Your task to perform on an android device: Check the price on the Dyson V11 Motorhead on Best Buy Image 0: 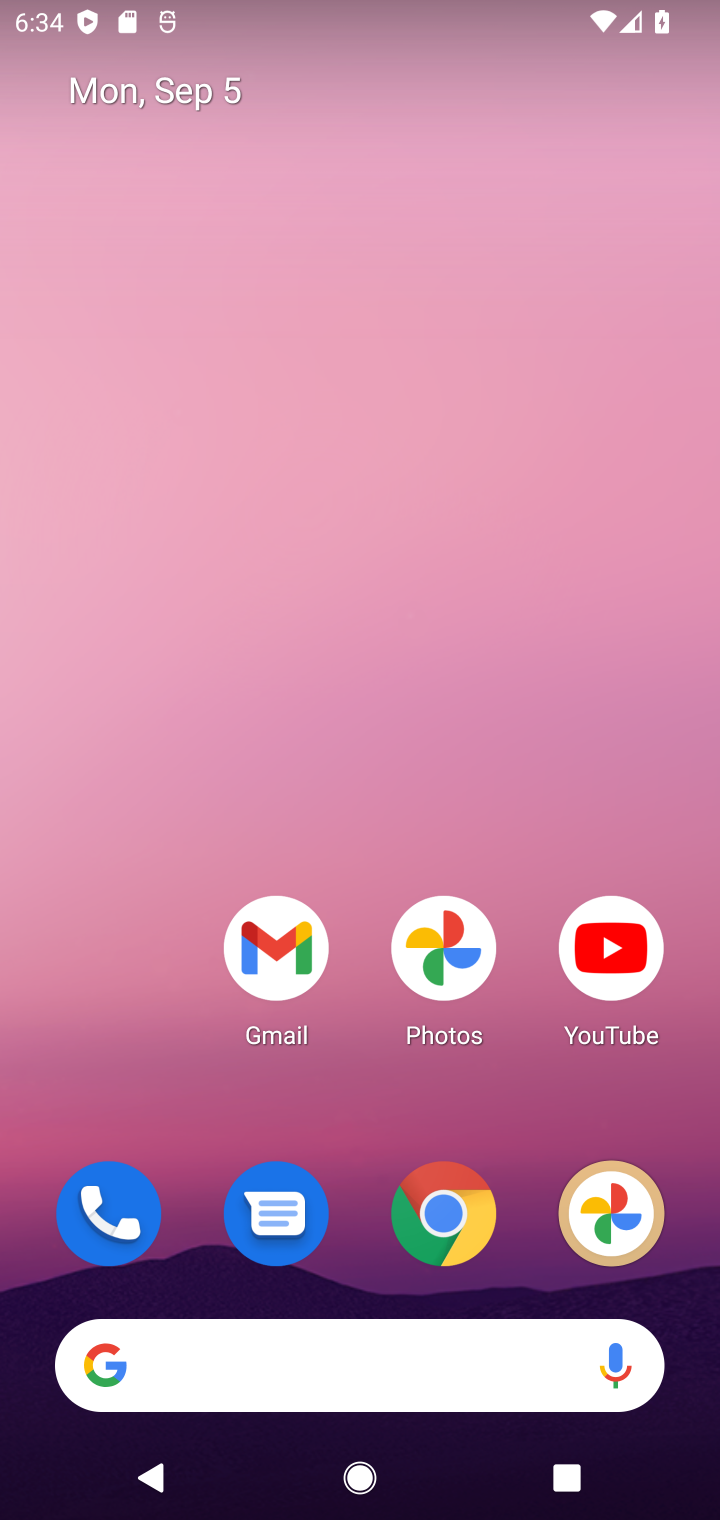
Step 0: click (456, 1231)
Your task to perform on an android device: Check the price on the Dyson V11 Motorhead on Best Buy Image 1: 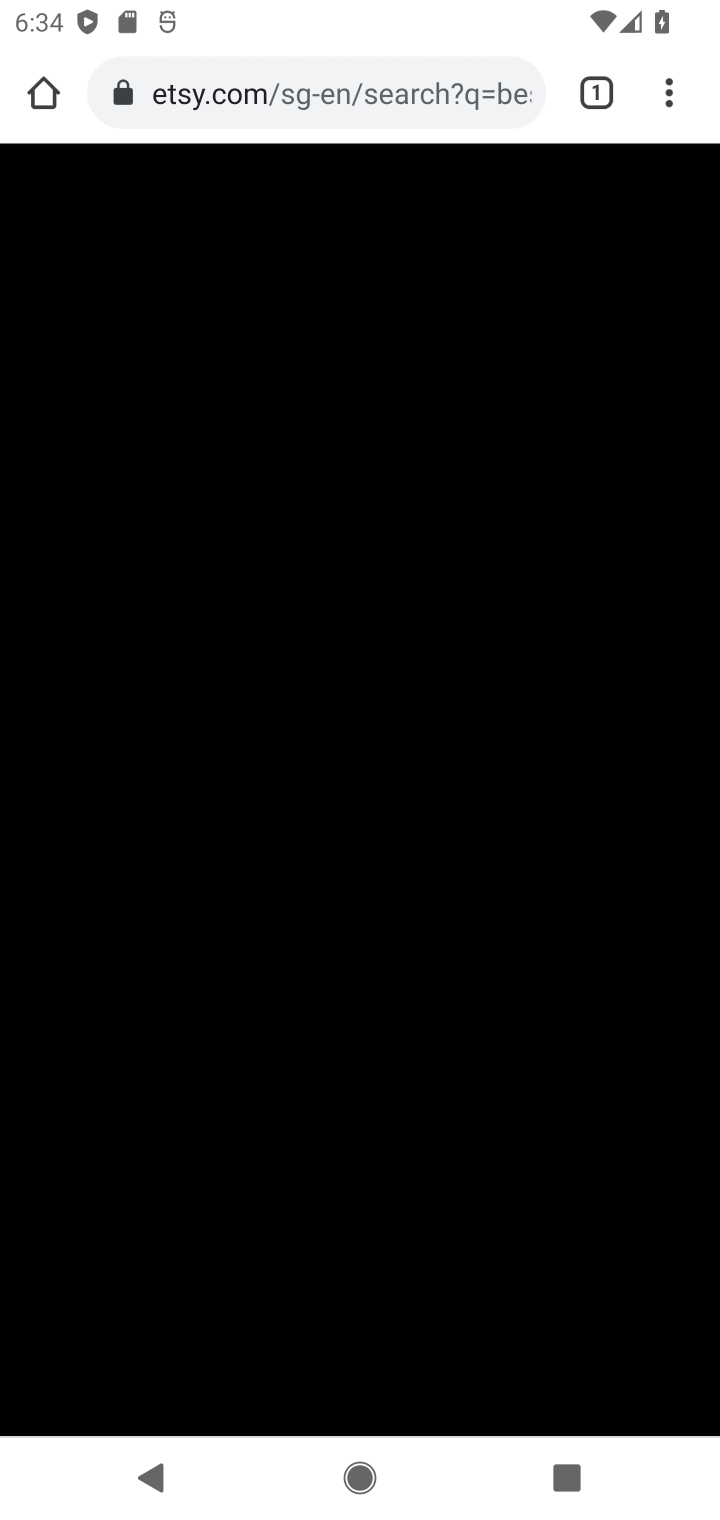
Step 1: click (352, 103)
Your task to perform on an android device: Check the price on the Dyson V11 Motorhead on Best Buy Image 2: 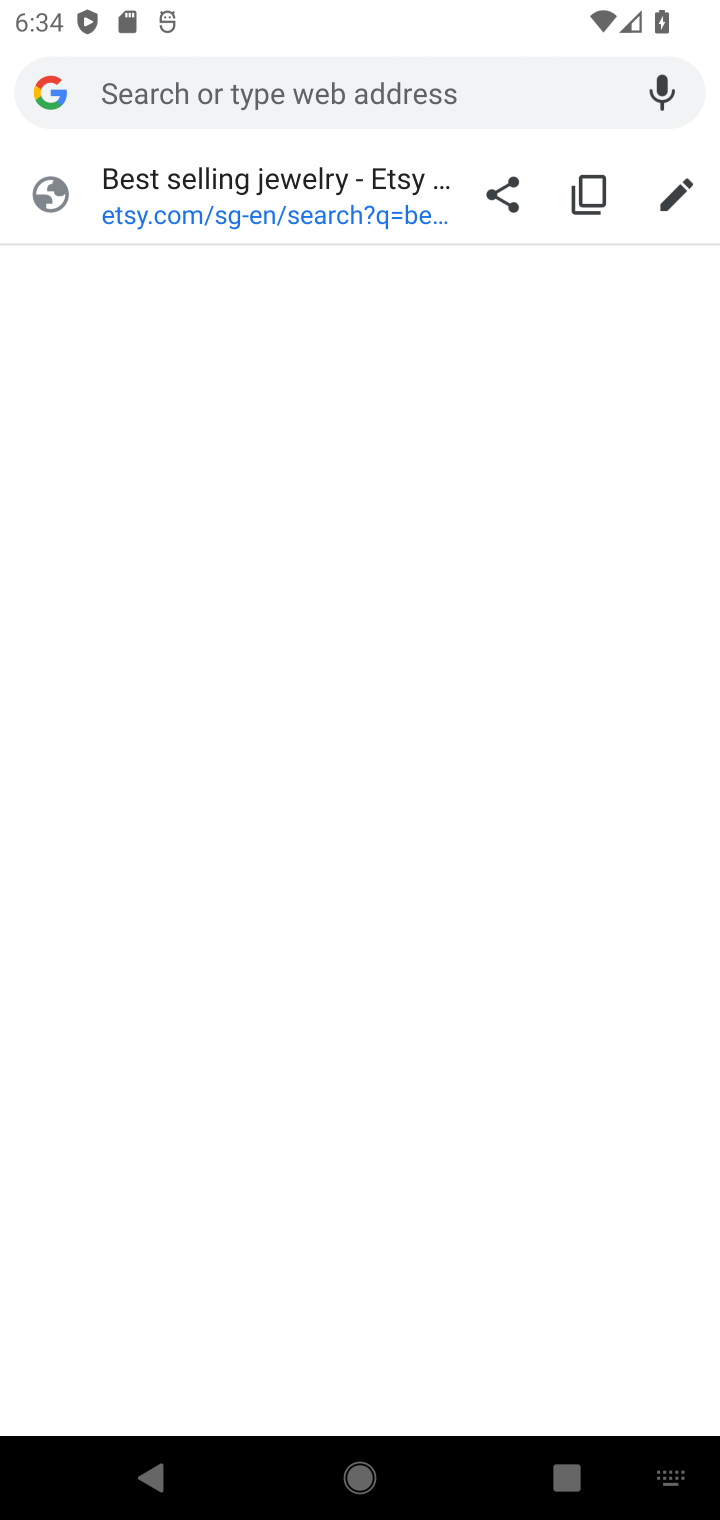
Step 2: type "Best Buy"
Your task to perform on an android device: Check the price on the Dyson V11 Motorhead on Best Buy Image 3: 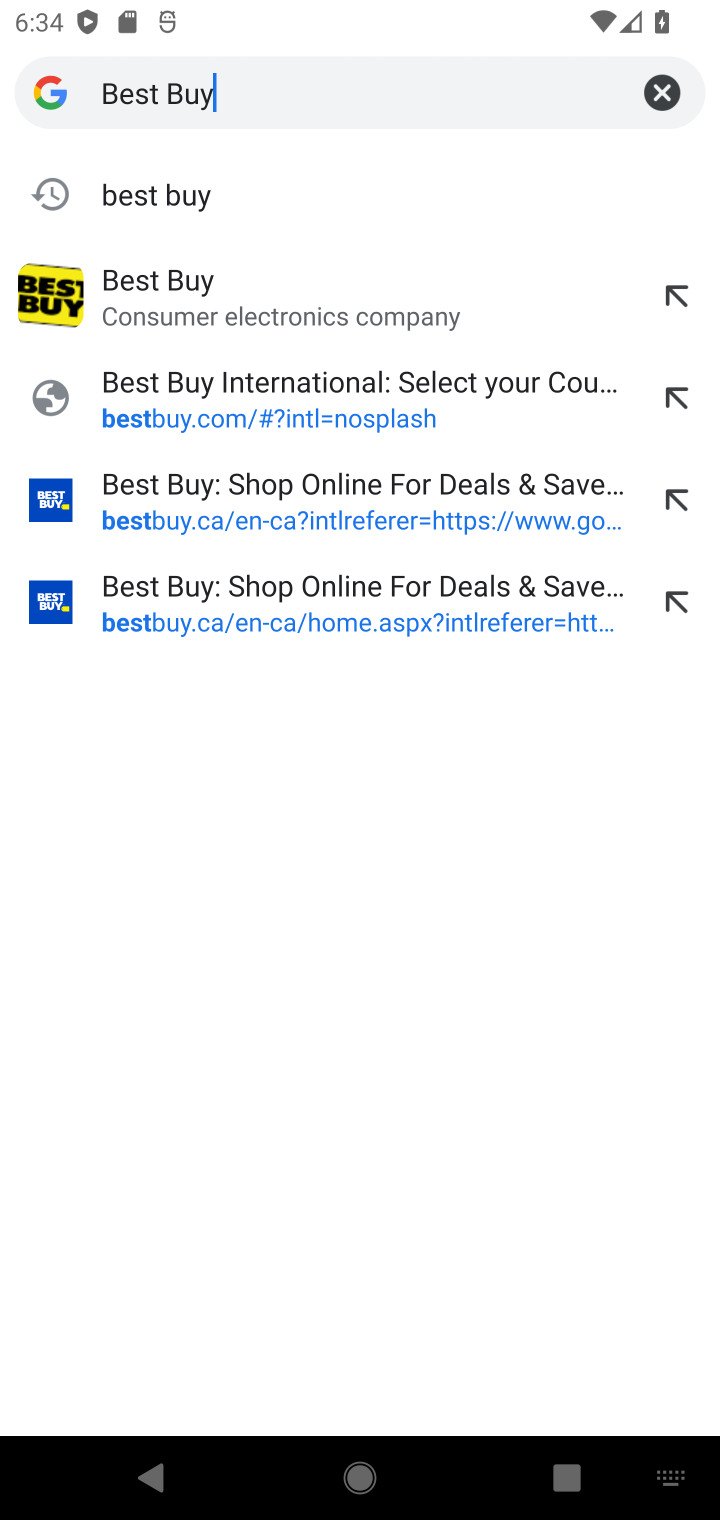
Step 3: click (147, 303)
Your task to perform on an android device: Check the price on the Dyson V11 Motorhead on Best Buy Image 4: 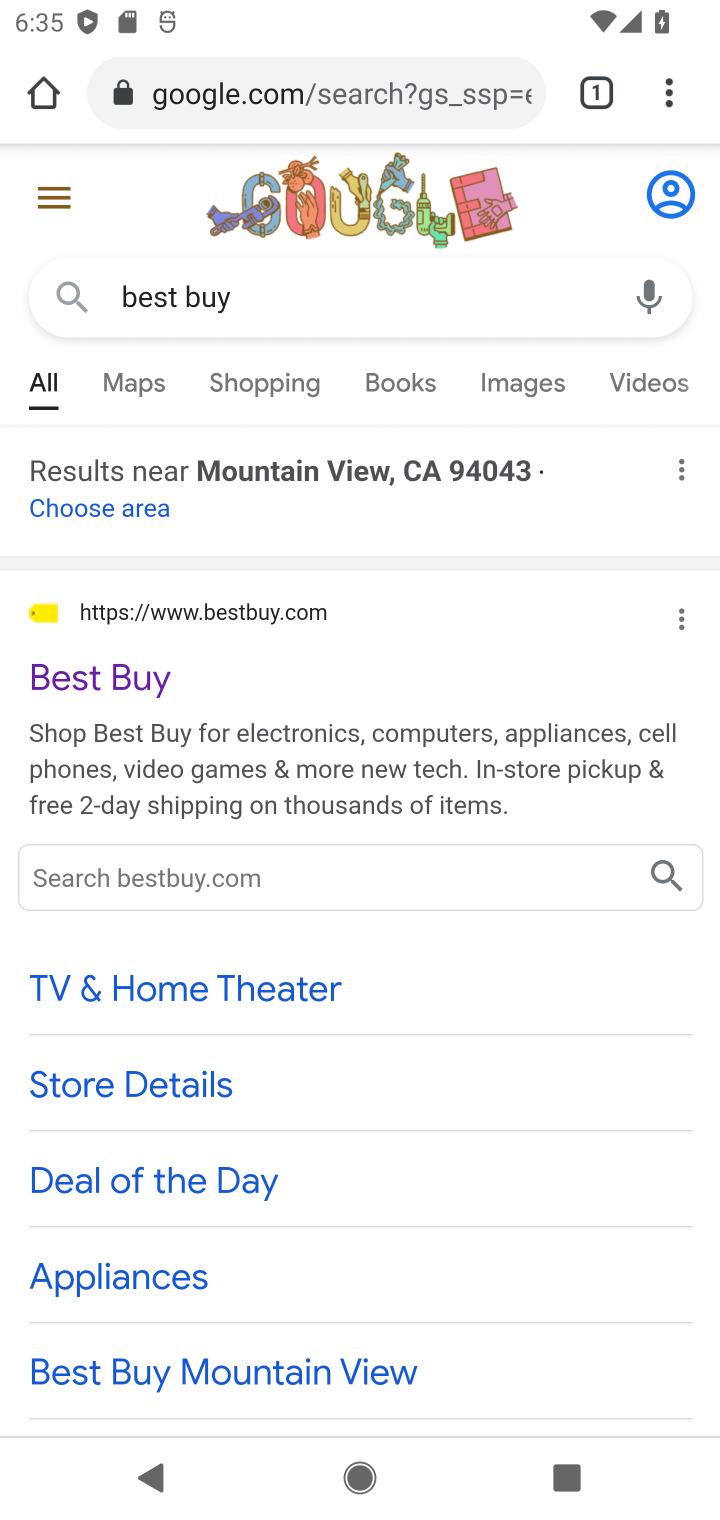
Step 4: click (89, 692)
Your task to perform on an android device: Check the price on the Dyson V11 Motorhead on Best Buy Image 5: 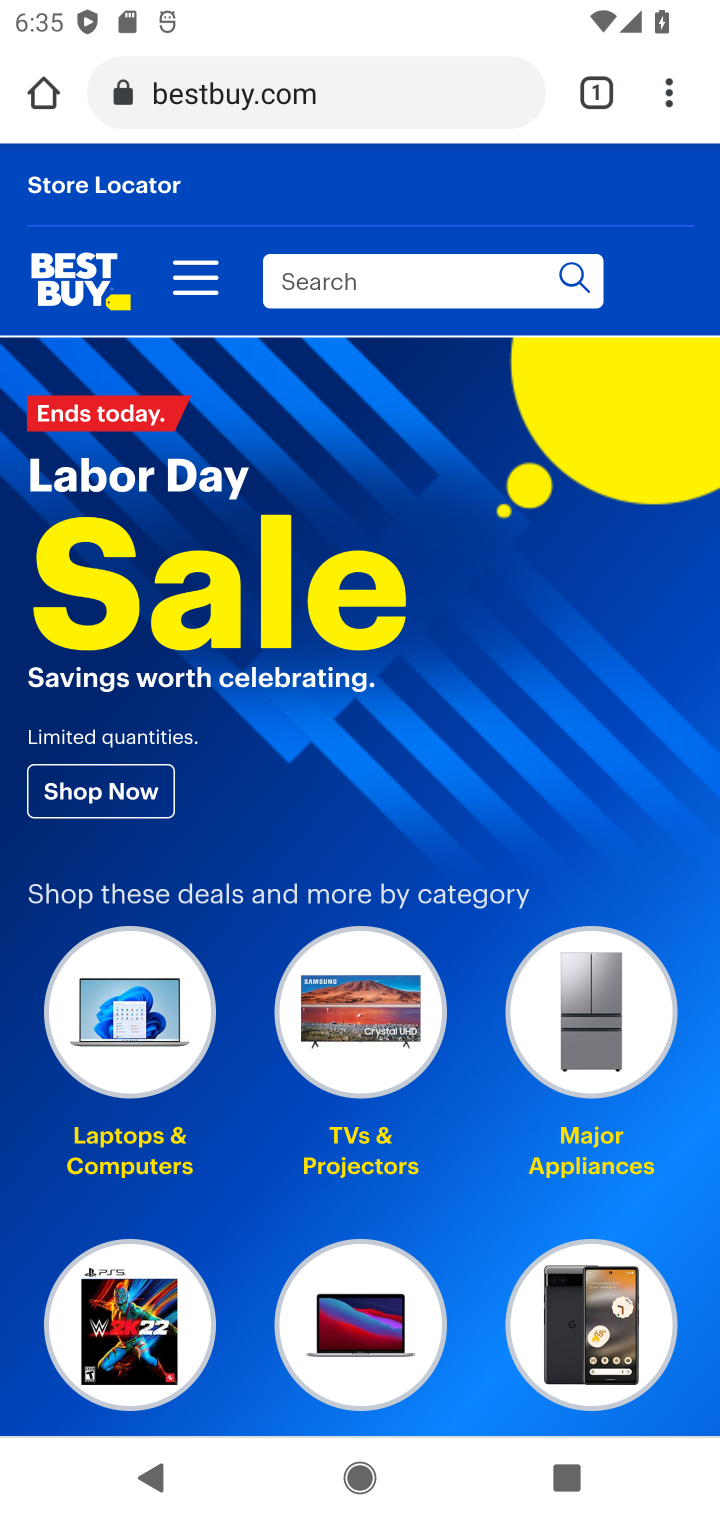
Step 5: click (376, 294)
Your task to perform on an android device: Check the price on the Dyson V11 Motorhead on Best Buy Image 6: 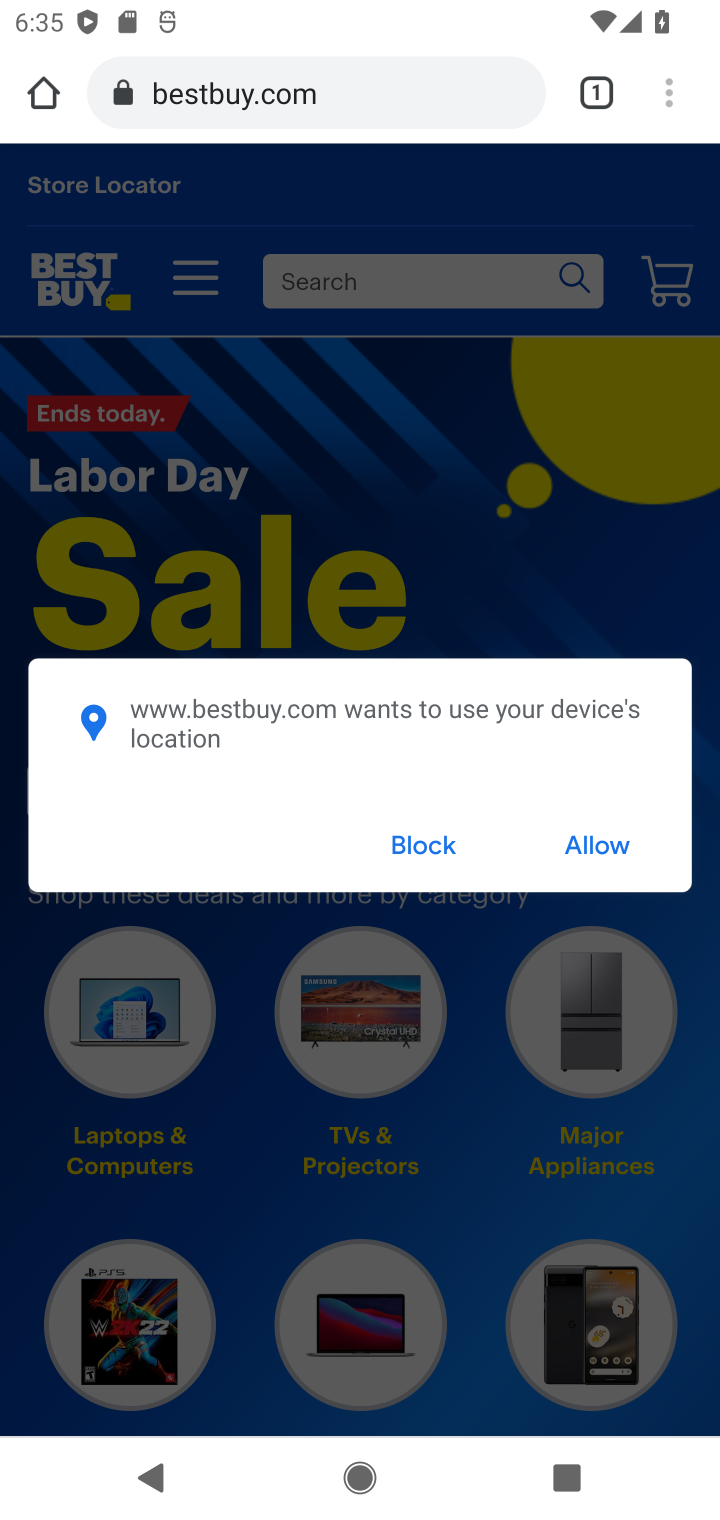
Step 6: click (427, 849)
Your task to perform on an android device: Check the price on the Dyson V11 Motorhead on Best Buy Image 7: 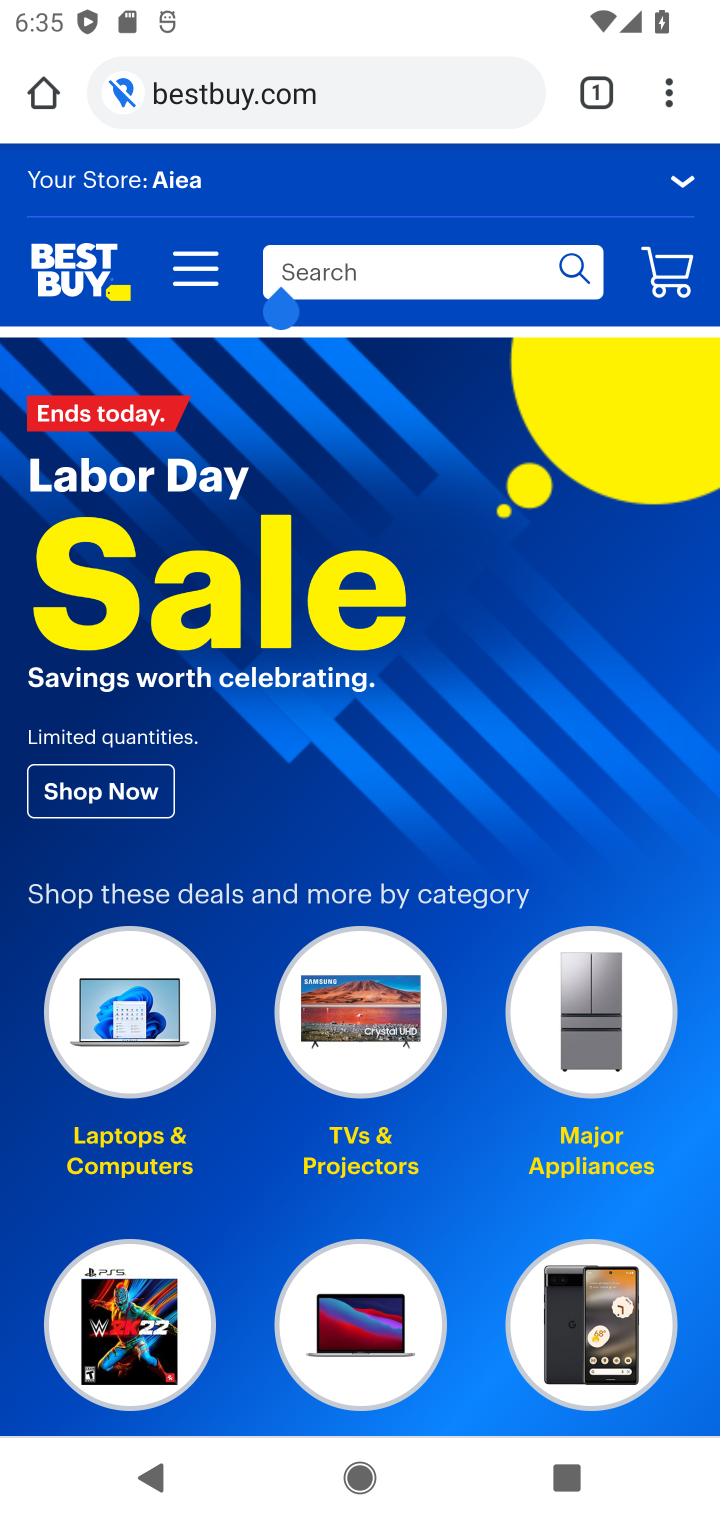
Step 7: click (360, 281)
Your task to perform on an android device: Check the price on the Dyson V11 Motorhead on Best Buy Image 8: 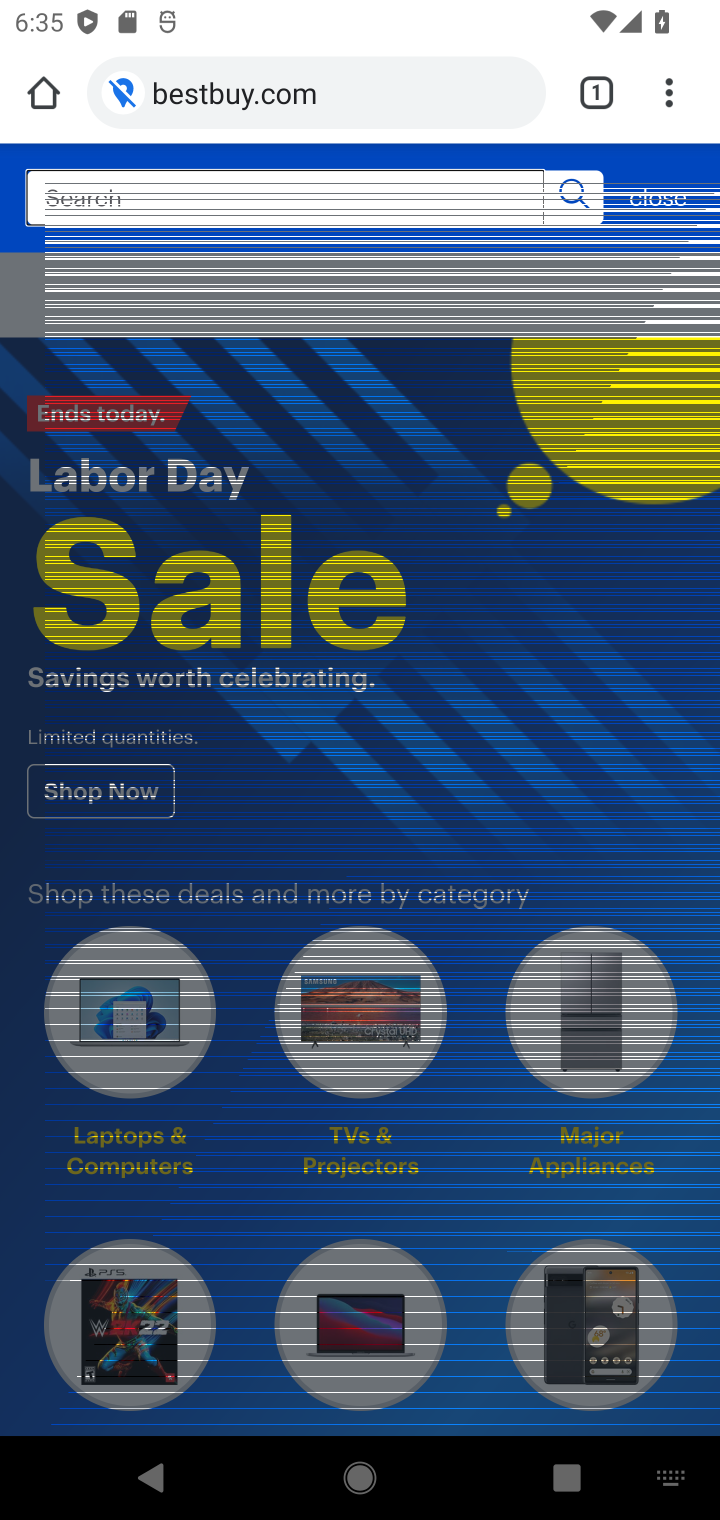
Step 8: type "price on the Dyson V11 Motorhead"
Your task to perform on an android device: Check the price on the Dyson V11 Motorhead on Best Buy Image 9: 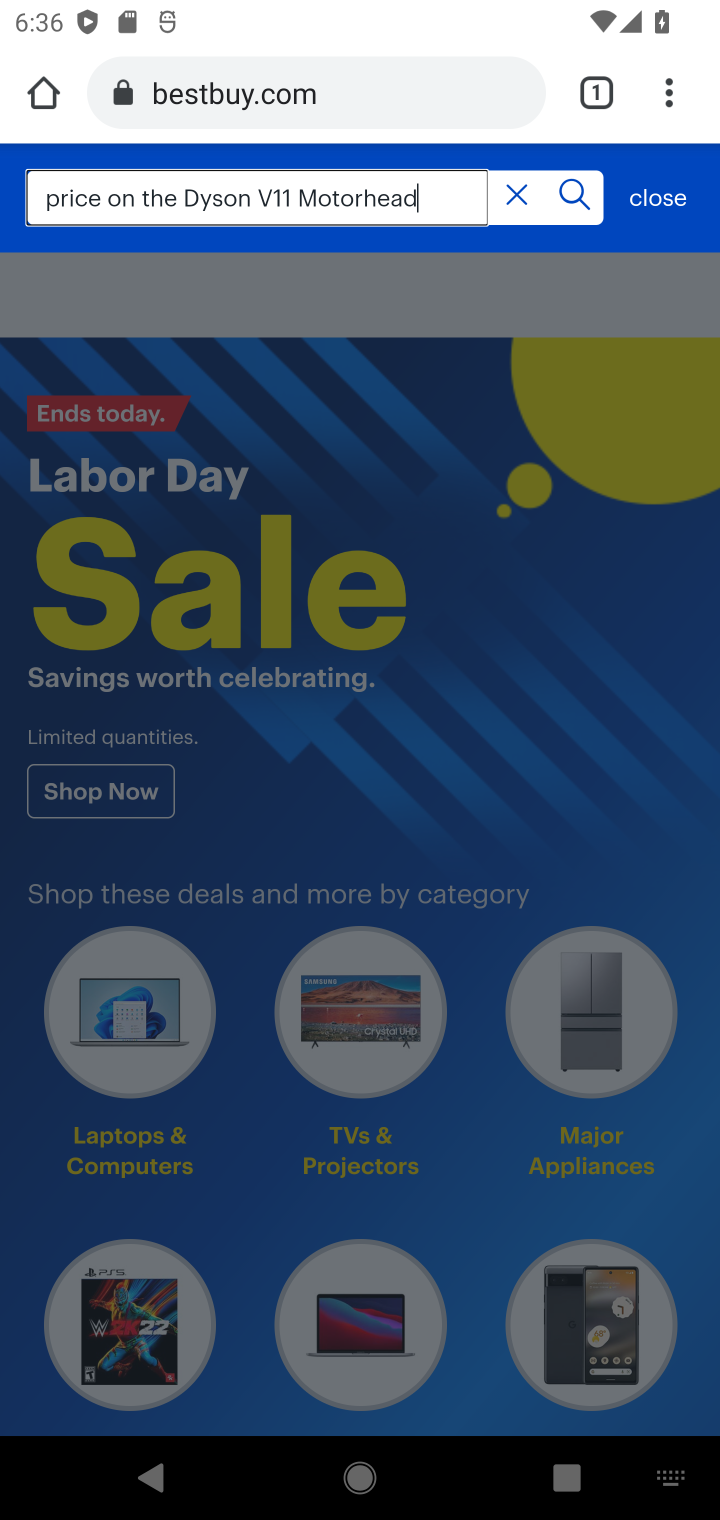
Step 9: click (576, 192)
Your task to perform on an android device: Check the price on the Dyson V11 Motorhead on Best Buy Image 10: 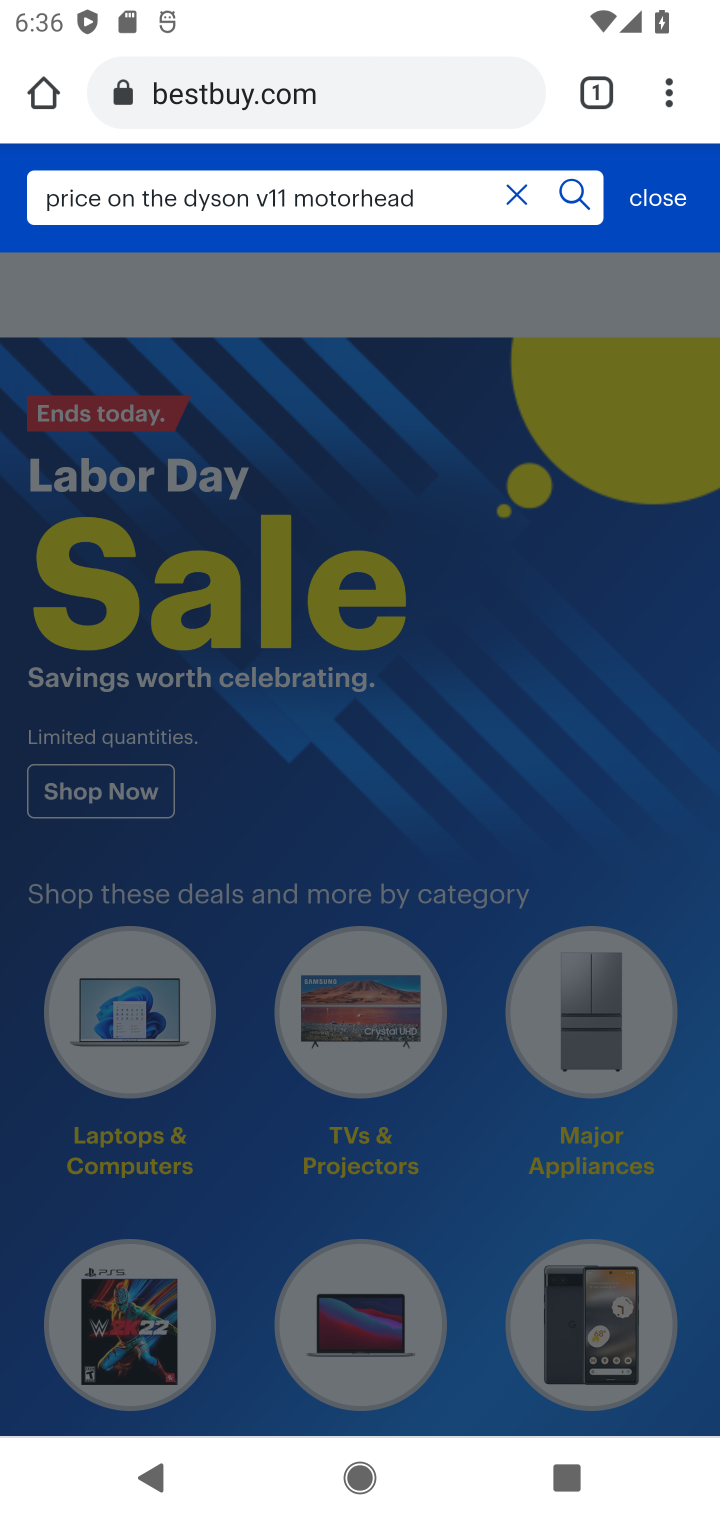
Step 10: click (567, 198)
Your task to perform on an android device: Check the price on the Dyson V11 Motorhead on Best Buy Image 11: 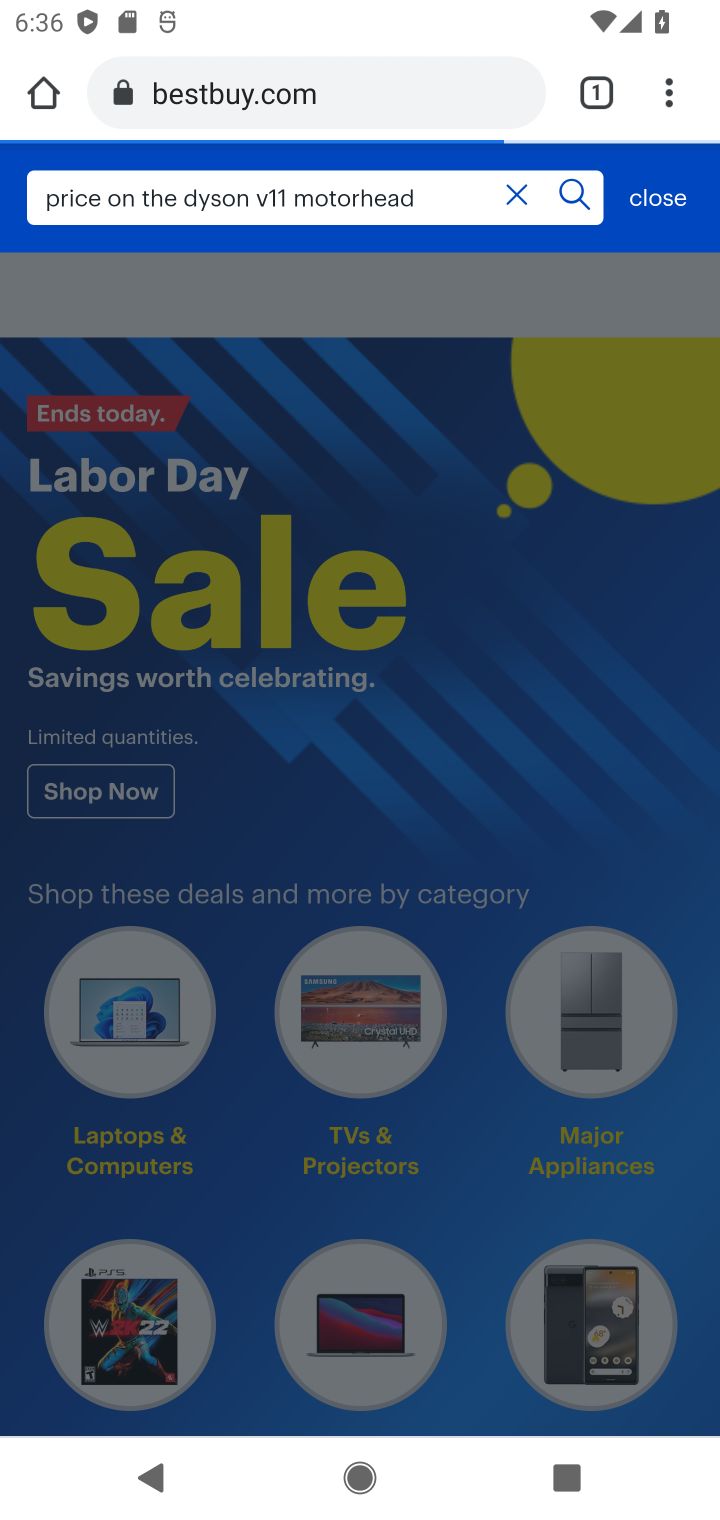
Step 11: click (578, 198)
Your task to perform on an android device: Check the price on the Dyson V11 Motorhead on Best Buy Image 12: 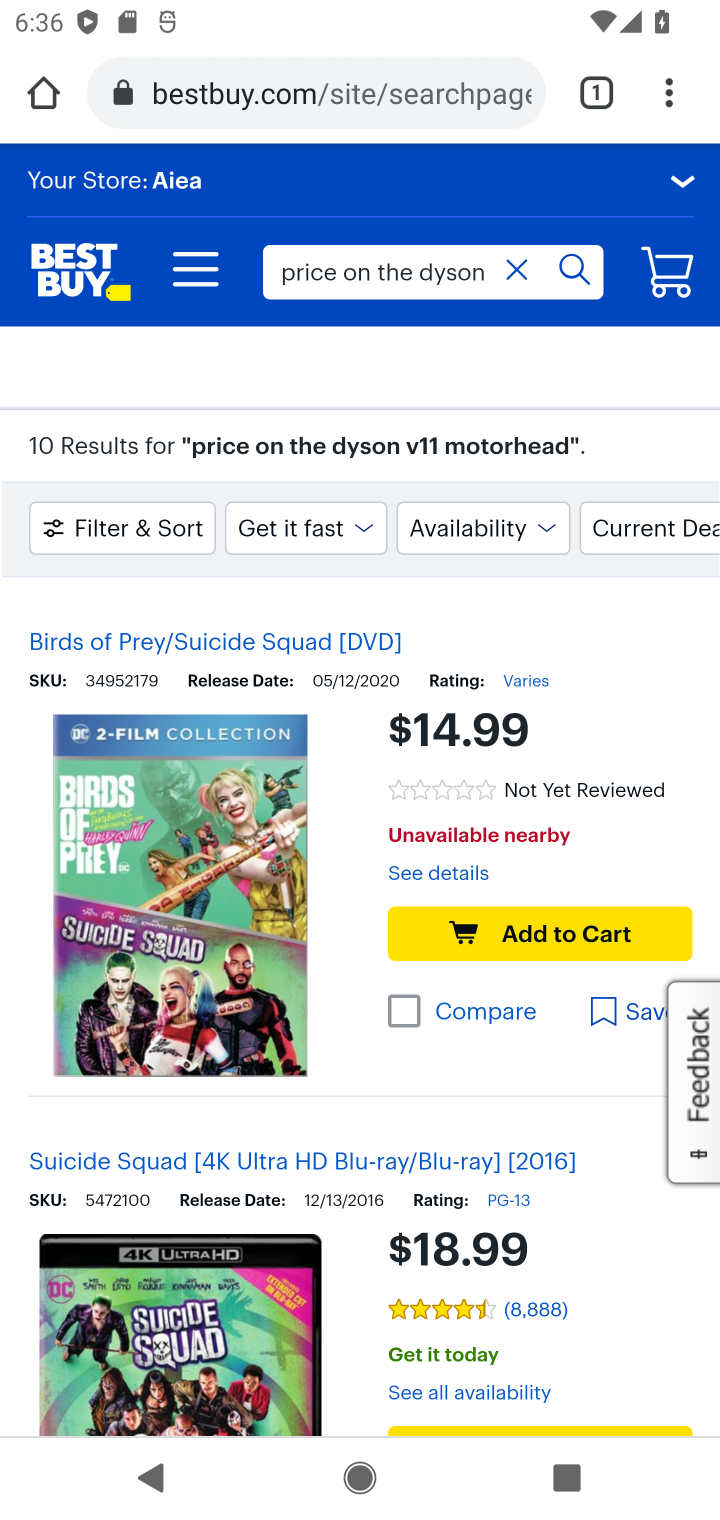
Step 12: task complete